Your task to perform on an android device: turn off location history Image 0: 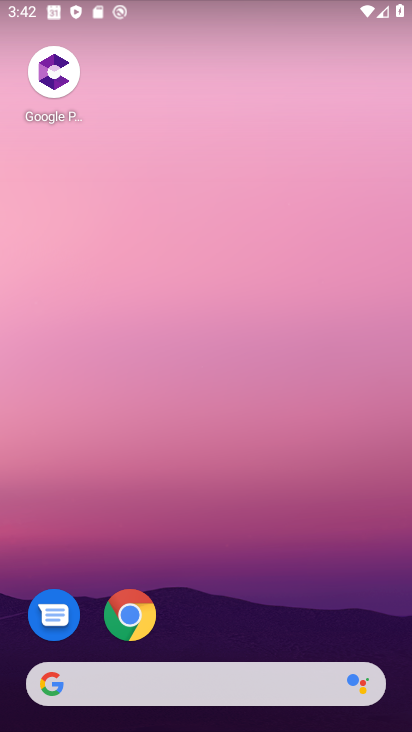
Step 0: drag from (287, 704) to (163, 49)
Your task to perform on an android device: turn off location history Image 1: 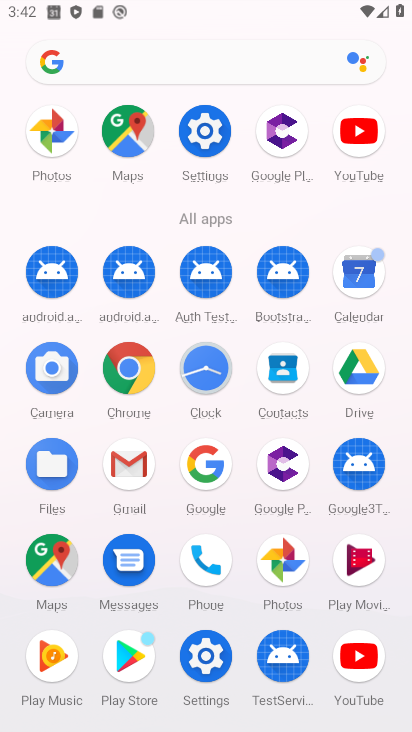
Step 1: click (193, 134)
Your task to perform on an android device: turn off location history Image 2: 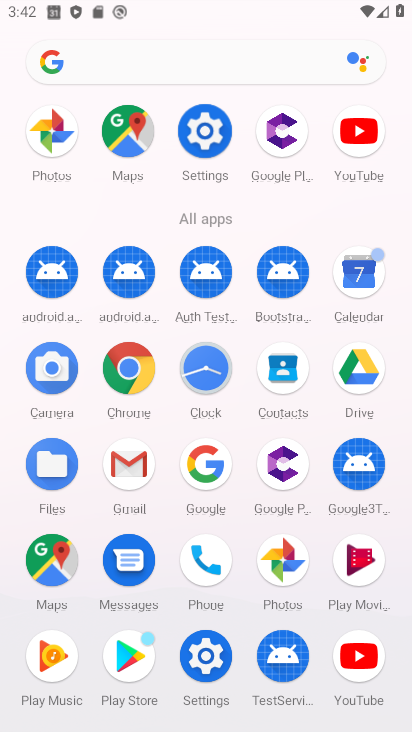
Step 2: click (205, 192)
Your task to perform on an android device: turn off location history Image 3: 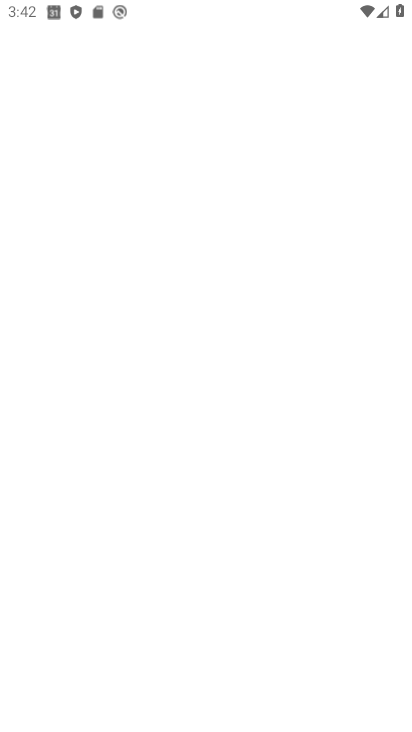
Step 3: click (206, 159)
Your task to perform on an android device: turn off location history Image 4: 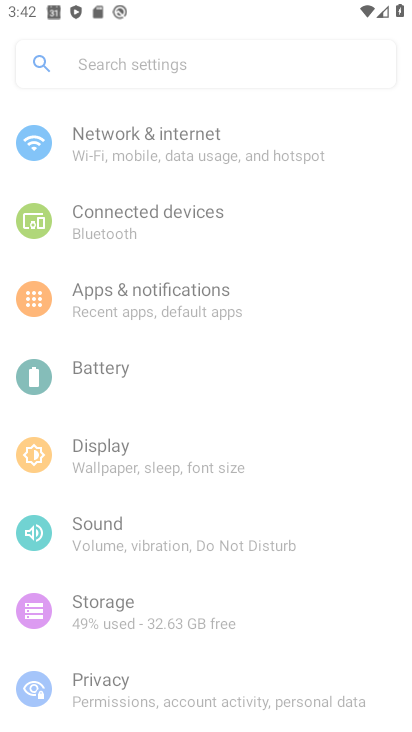
Step 4: click (207, 159)
Your task to perform on an android device: turn off location history Image 5: 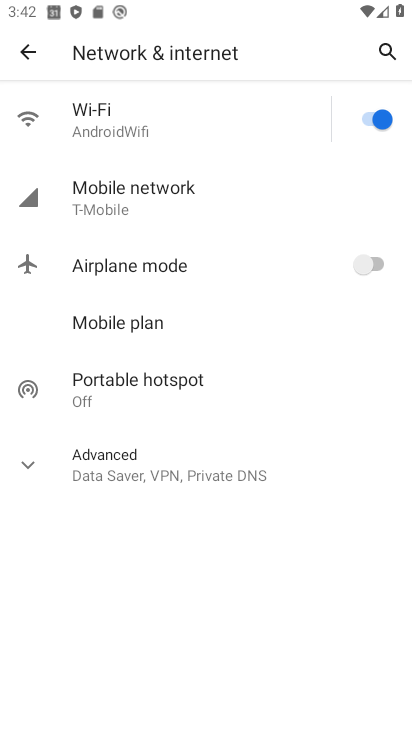
Step 5: click (23, 56)
Your task to perform on an android device: turn off location history Image 6: 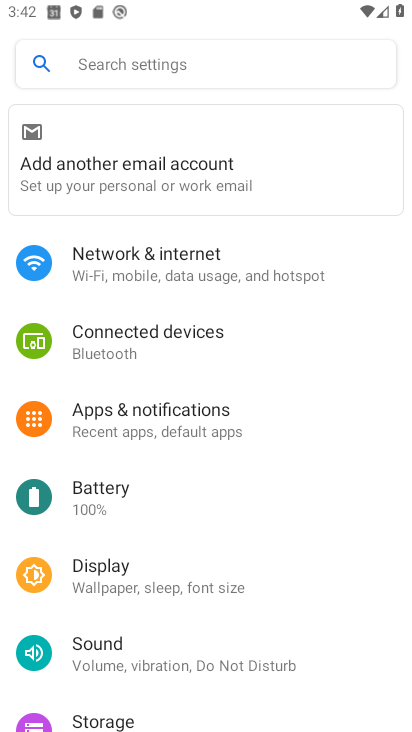
Step 6: drag from (117, 589) to (44, 164)
Your task to perform on an android device: turn off location history Image 7: 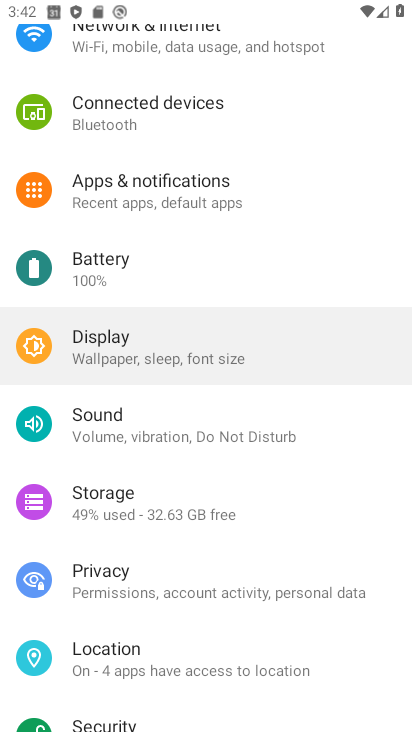
Step 7: drag from (126, 426) to (111, 135)
Your task to perform on an android device: turn off location history Image 8: 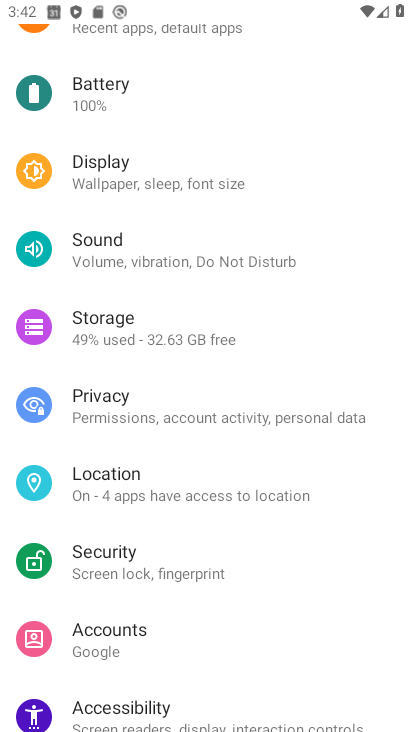
Step 8: click (111, 488)
Your task to perform on an android device: turn off location history Image 9: 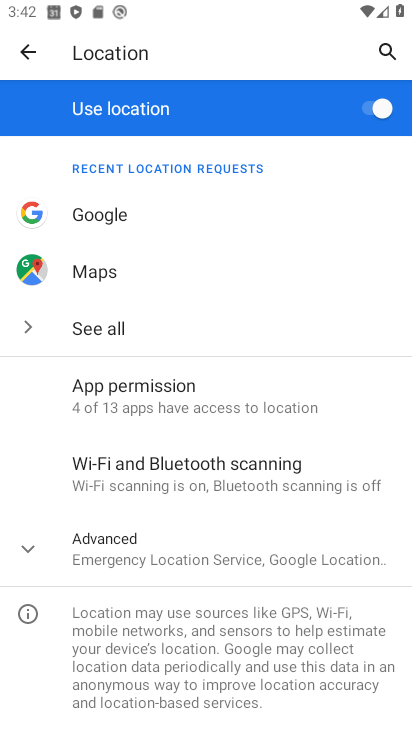
Step 9: click (112, 565)
Your task to perform on an android device: turn off location history Image 10: 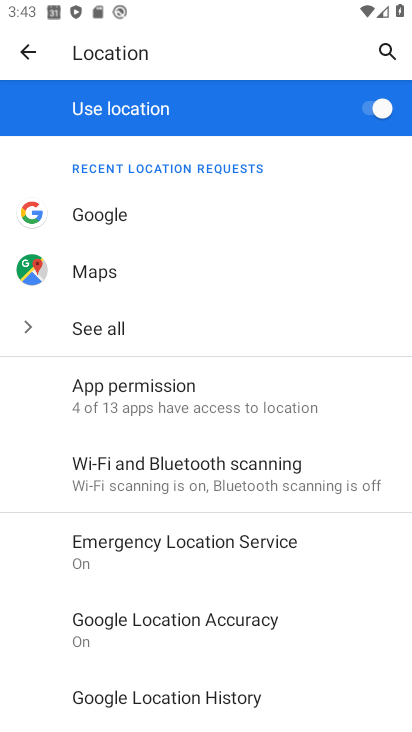
Step 10: click (161, 695)
Your task to perform on an android device: turn off location history Image 11: 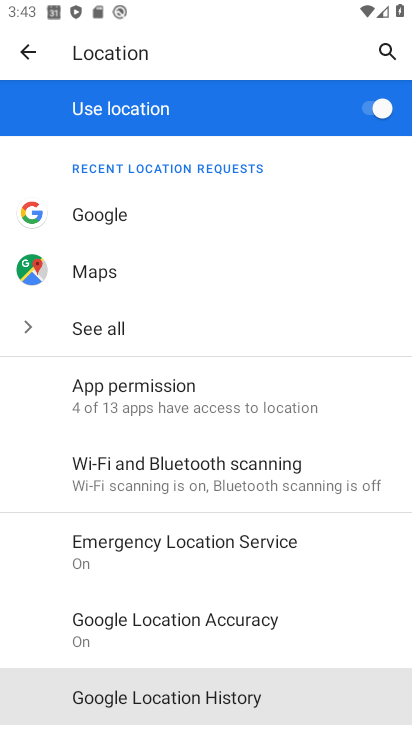
Step 11: click (161, 695)
Your task to perform on an android device: turn off location history Image 12: 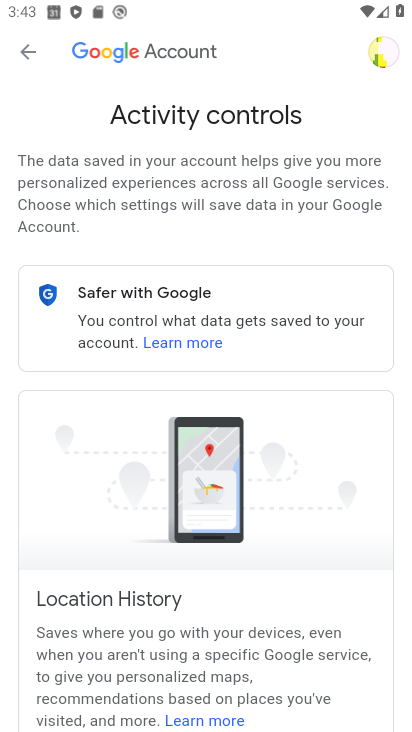
Step 12: task complete